Your task to perform on an android device: open the mobile data screen to see how much data has been used Image 0: 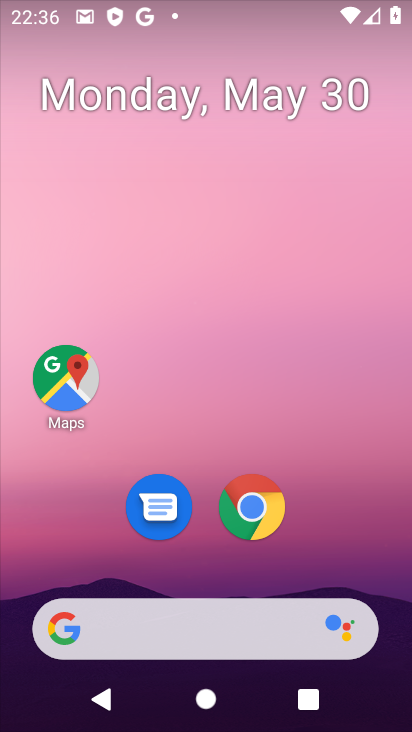
Step 0: drag from (366, 533) to (353, 169)
Your task to perform on an android device: open the mobile data screen to see how much data has been used Image 1: 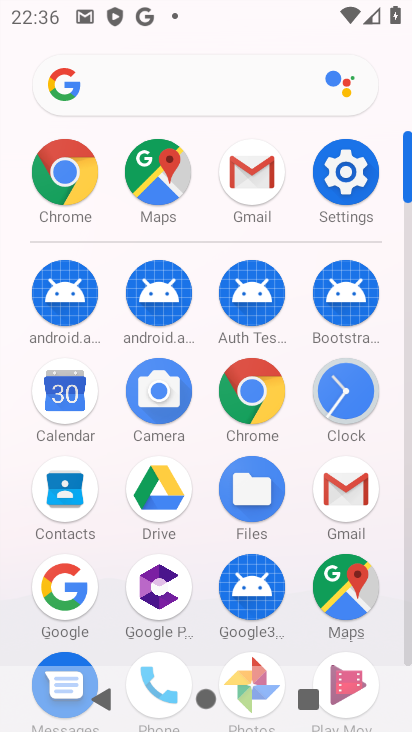
Step 1: click (354, 191)
Your task to perform on an android device: open the mobile data screen to see how much data has been used Image 2: 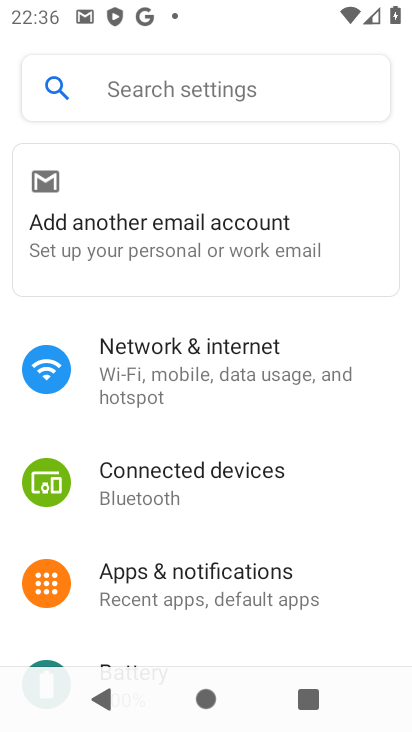
Step 2: click (260, 361)
Your task to perform on an android device: open the mobile data screen to see how much data has been used Image 3: 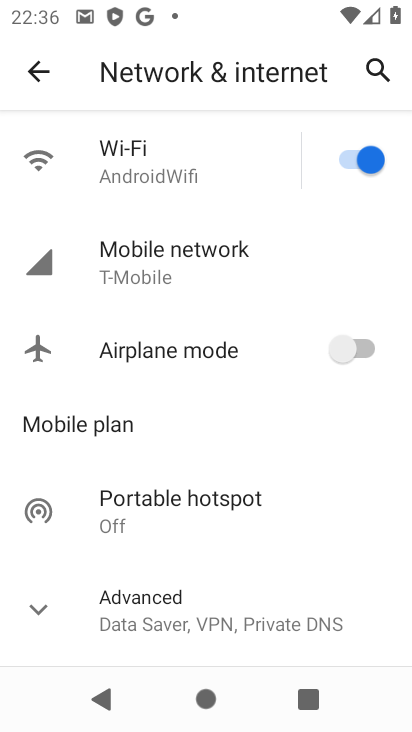
Step 3: click (197, 271)
Your task to perform on an android device: open the mobile data screen to see how much data has been used Image 4: 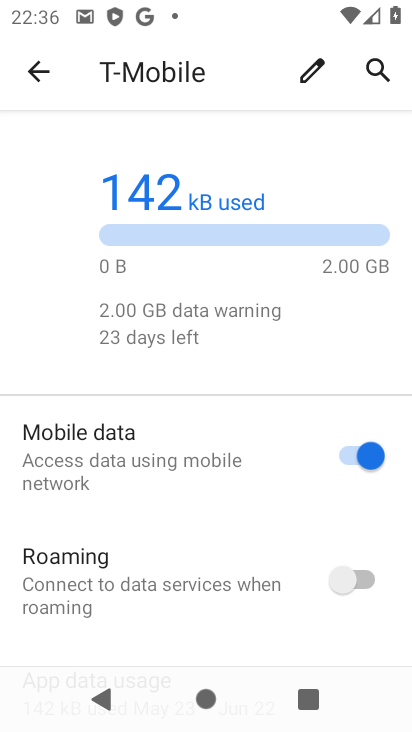
Step 4: drag from (250, 515) to (228, 287)
Your task to perform on an android device: open the mobile data screen to see how much data has been used Image 5: 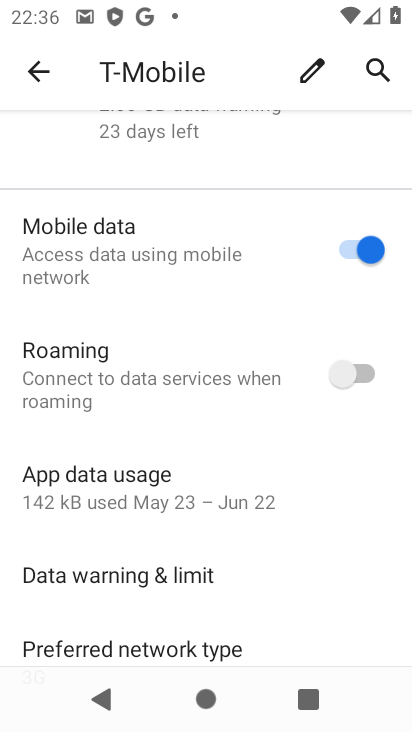
Step 5: click (200, 483)
Your task to perform on an android device: open the mobile data screen to see how much data has been used Image 6: 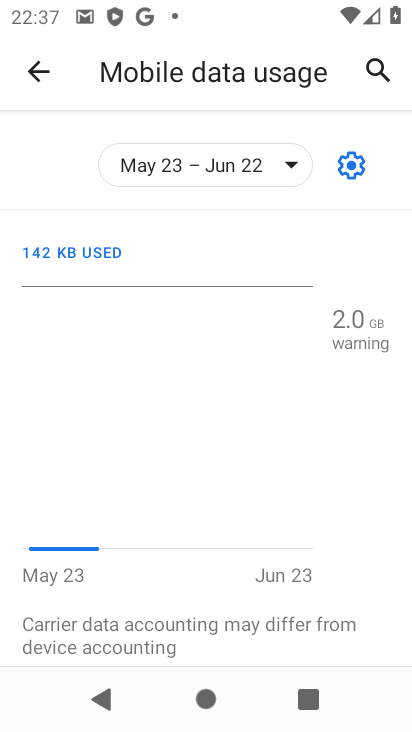
Step 6: task complete